Your task to perform on an android device: Go to settings Image 0: 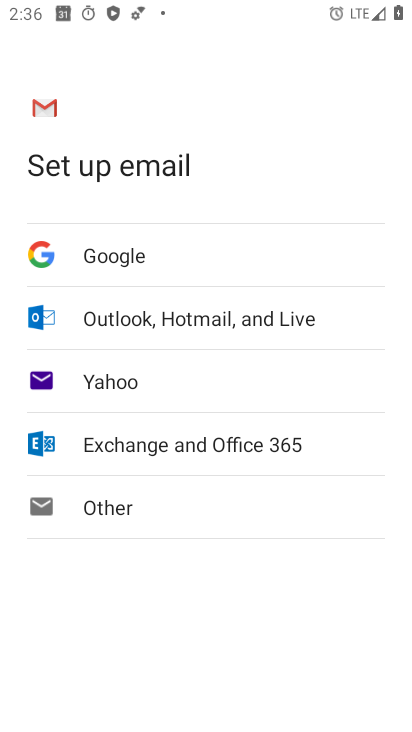
Step 0: press home button
Your task to perform on an android device: Go to settings Image 1: 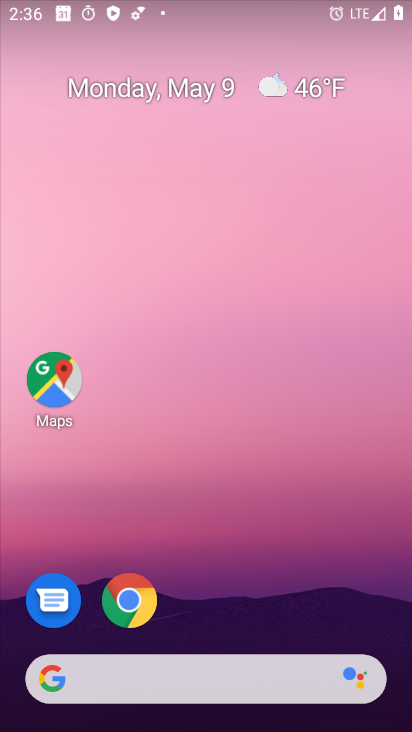
Step 1: drag from (243, 670) to (250, 94)
Your task to perform on an android device: Go to settings Image 2: 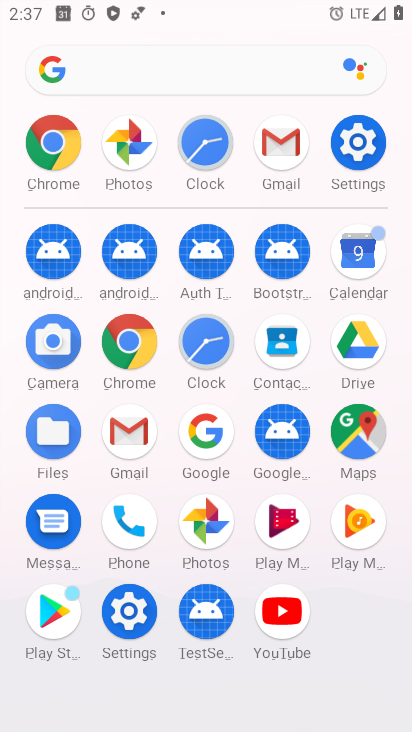
Step 2: click (356, 148)
Your task to perform on an android device: Go to settings Image 3: 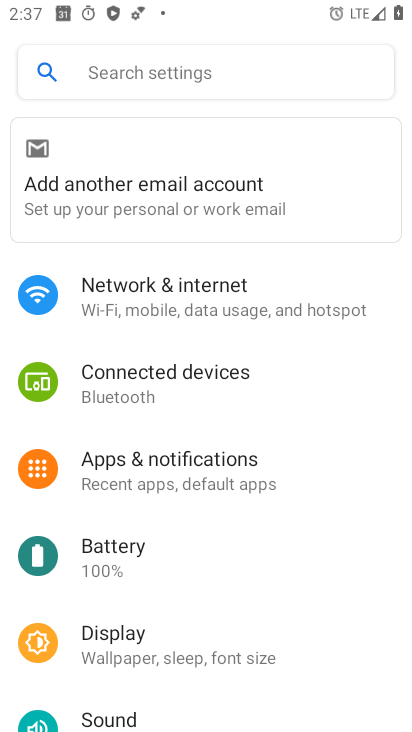
Step 3: task complete